Your task to perform on an android device: change the clock display to show seconds Image 0: 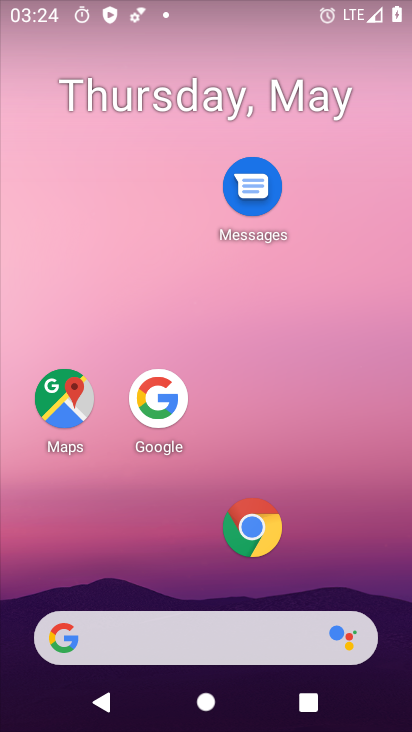
Step 0: drag from (211, 573) to (238, 195)
Your task to perform on an android device: change the clock display to show seconds Image 1: 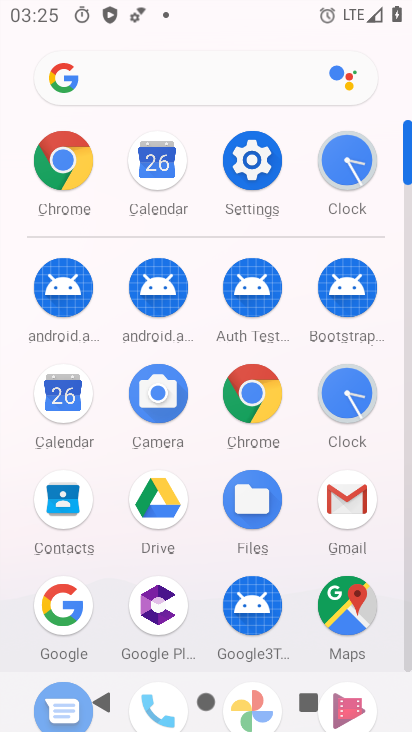
Step 1: click (335, 392)
Your task to perform on an android device: change the clock display to show seconds Image 2: 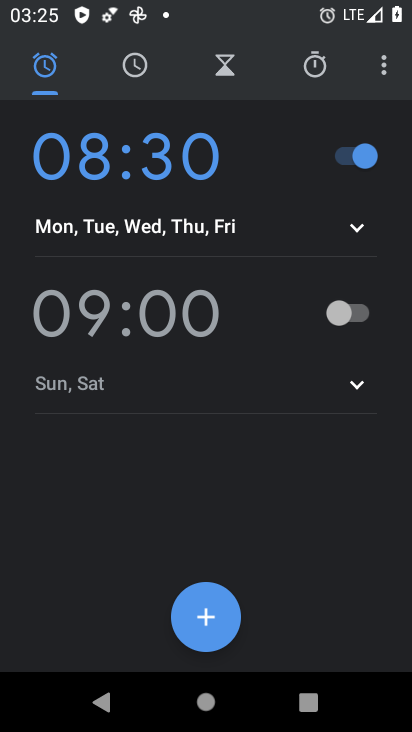
Step 2: click (388, 58)
Your task to perform on an android device: change the clock display to show seconds Image 3: 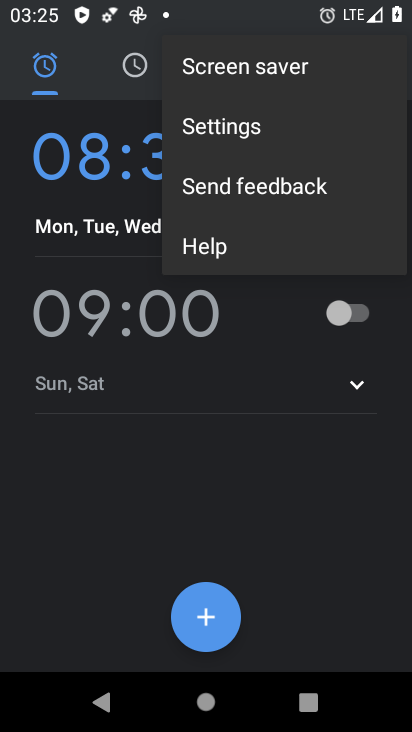
Step 3: click (244, 128)
Your task to perform on an android device: change the clock display to show seconds Image 4: 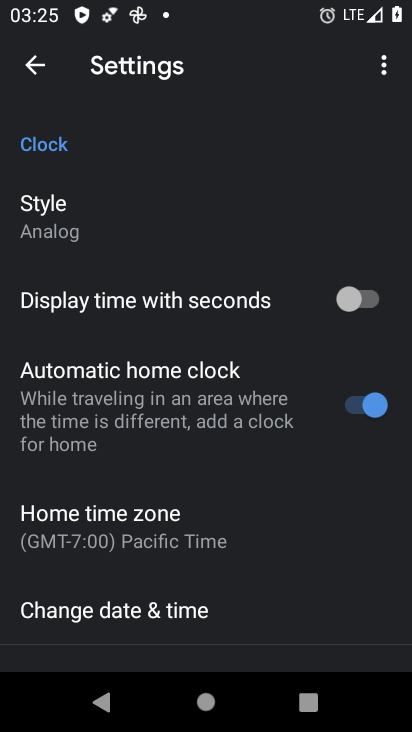
Step 4: click (296, 302)
Your task to perform on an android device: change the clock display to show seconds Image 5: 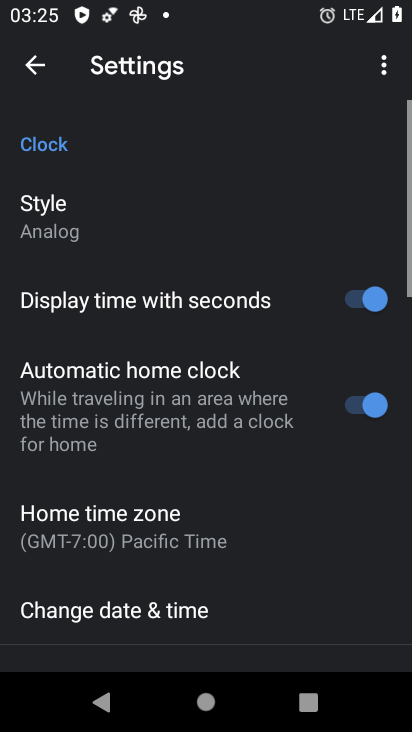
Step 5: task complete